Your task to perform on an android device: Find coffee shops on Maps Image 0: 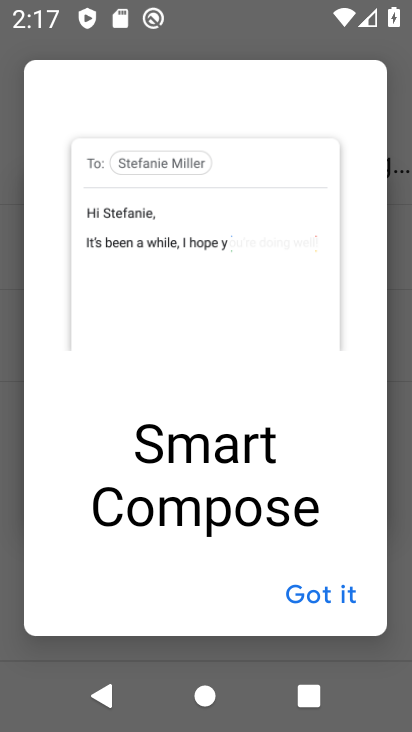
Step 0: press home button
Your task to perform on an android device: Find coffee shops on Maps Image 1: 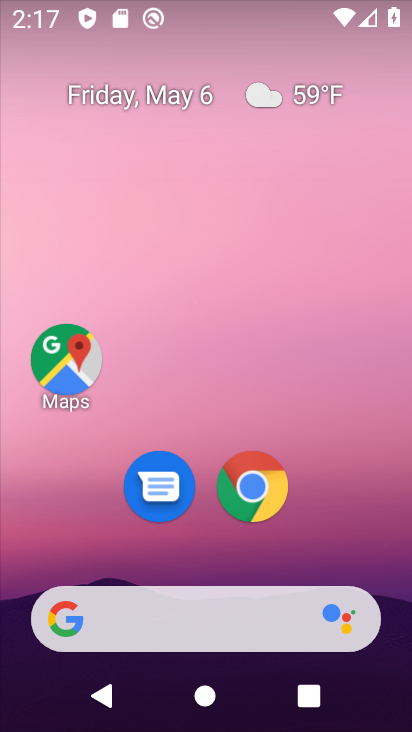
Step 1: click (57, 373)
Your task to perform on an android device: Find coffee shops on Maps Image 2: 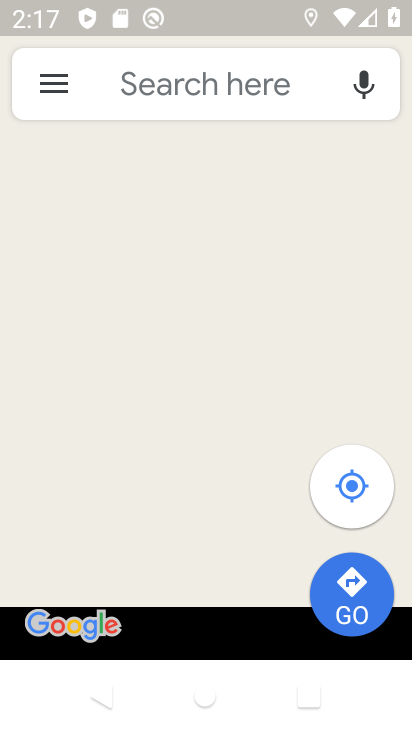
Step 2: click (218, 91)
Your task to perform on an android device: Find coffee shops on Maps Image 3: 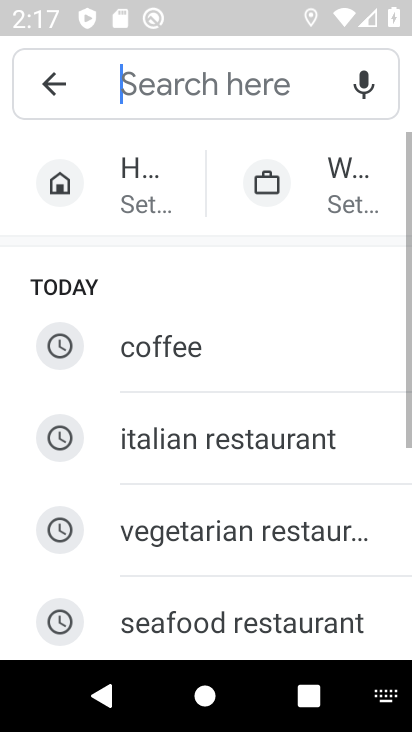
Step 3: click (164, 347)
Your task to perform on an android device: Find coffee shops on Maps Image 4: 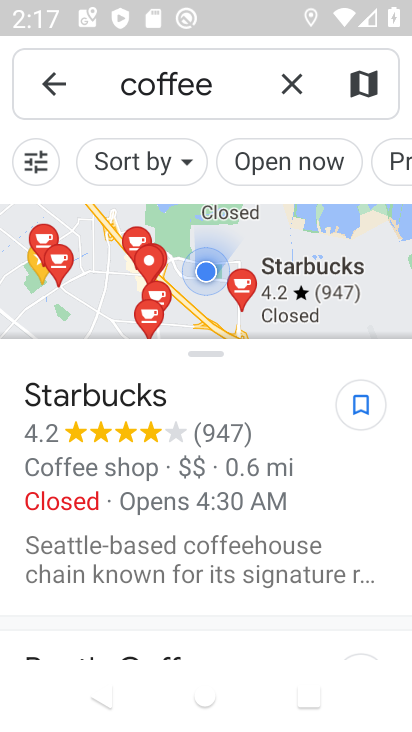
Step 4: task complete